Your task to perform on an android device: install app "Google Photos" Image 0: 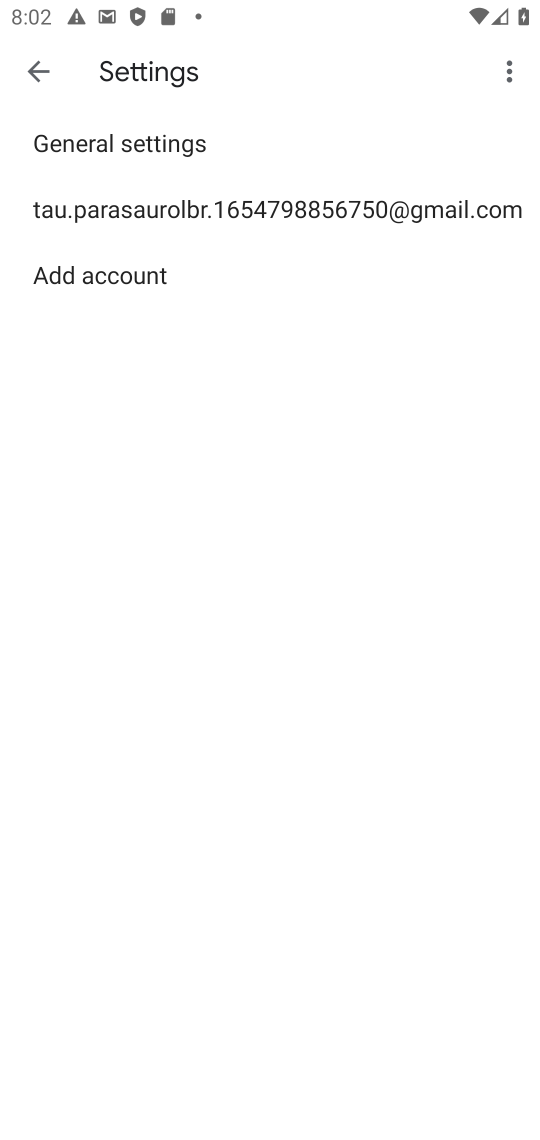
Step 0: press home button
Your task to perform on an android device: install app "Google Photos" Image 1: 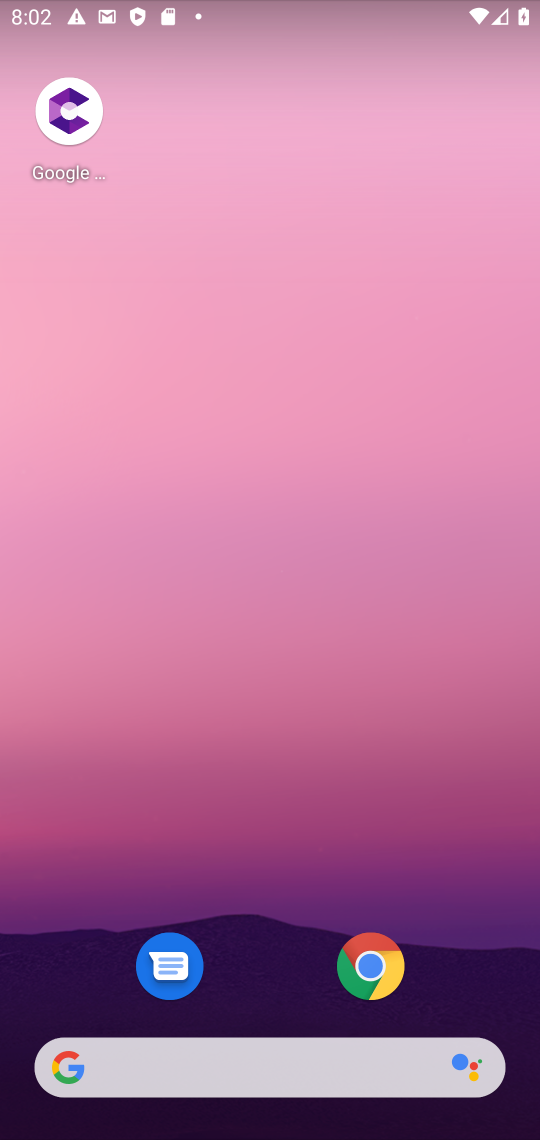
Step 1: drag from (522, 1074) to (481, 47)
Your task to perform on an android device: install app "Google Photos" Image 2: 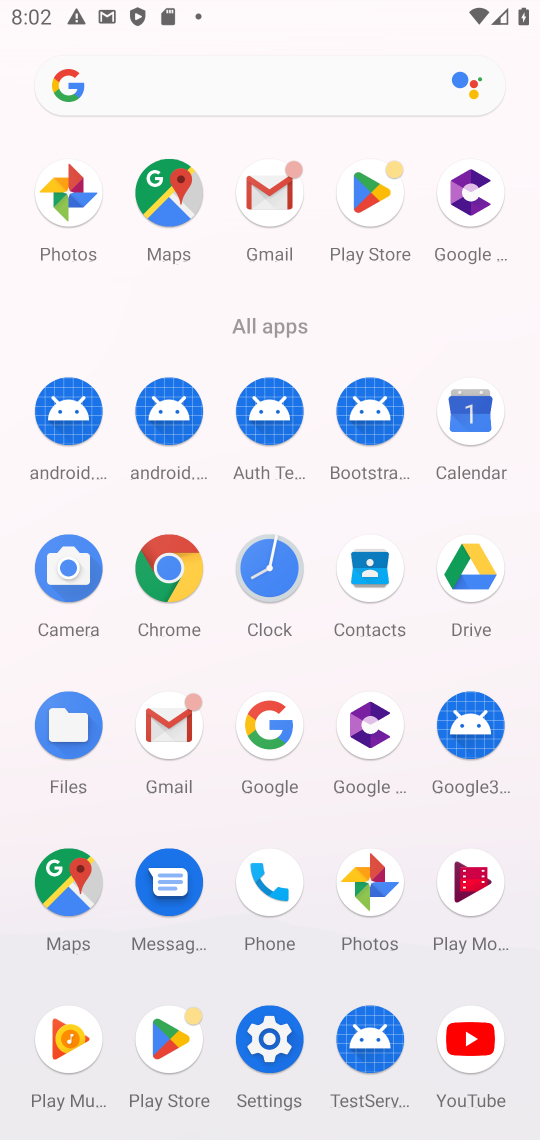
Step 2: click (365, 869)
Your task to perform on an android device: install app "Google Photos" Image 3: 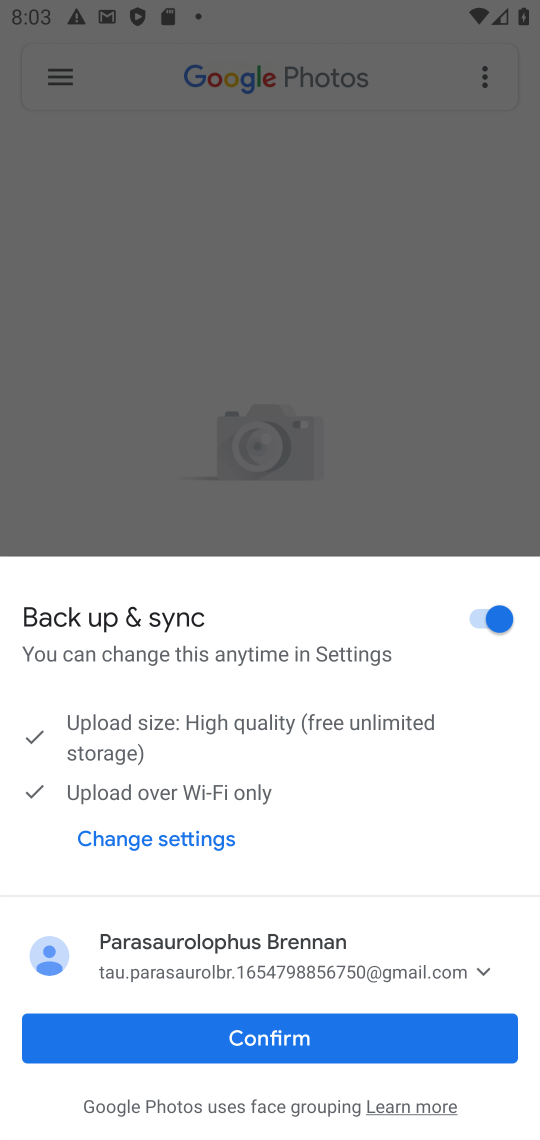
Step 3: click (290, 1047)
Your task to perform on an android device: install app "Google Photos" Image 4: 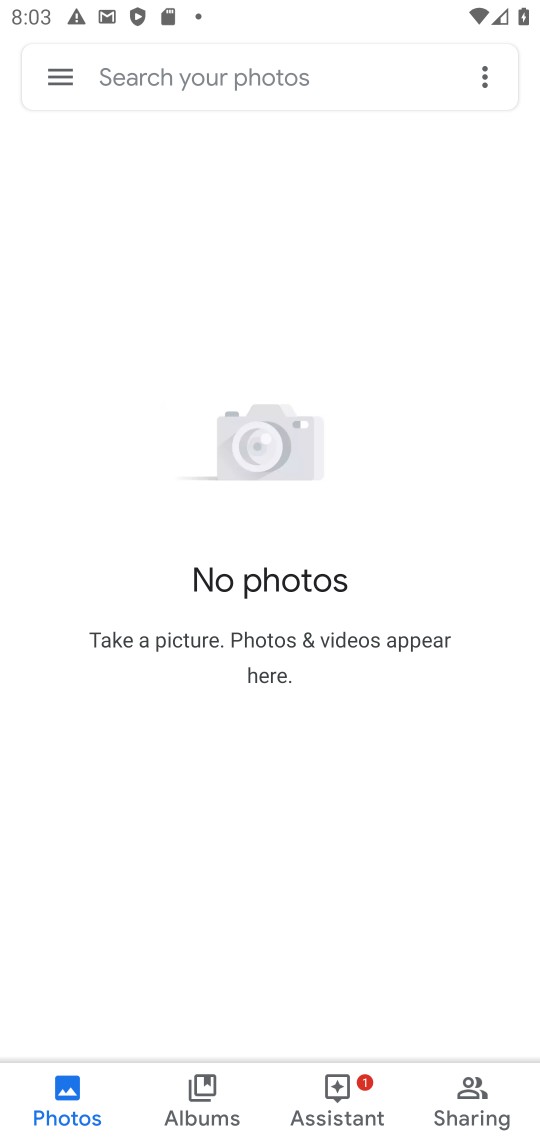
Step 4: task complete